Your task to perform on an android device: Open settings on Google Maps Image 0: 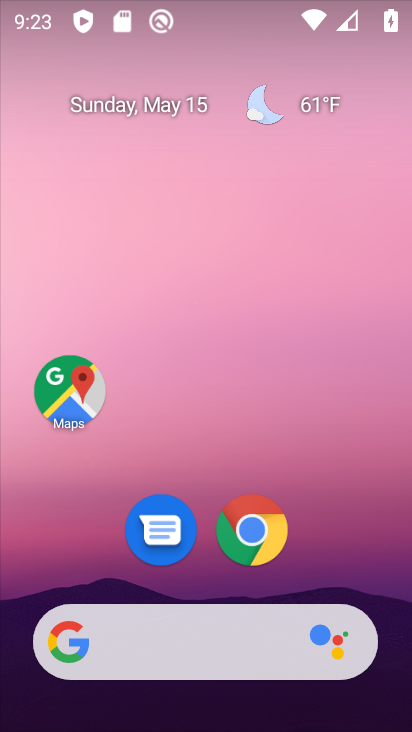
Step 0: drag from (230, 723) to (238, 124)
Your task to perform on an android device: Open settings on Google Maps Image 1: 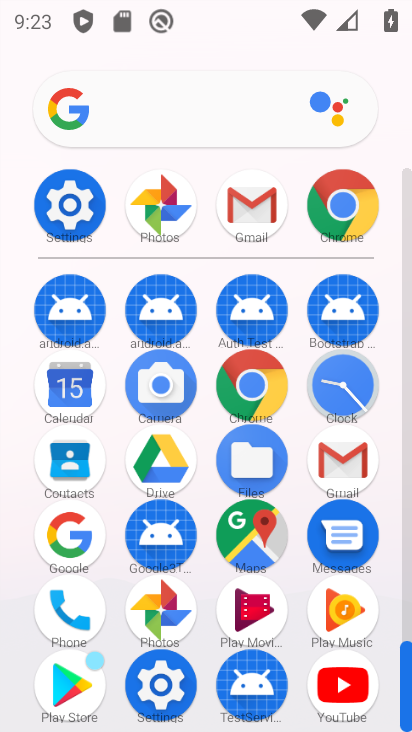
Step 1: click (261, 538)
Your task to perform on an android device: Open settings on Google Maps Image 2: 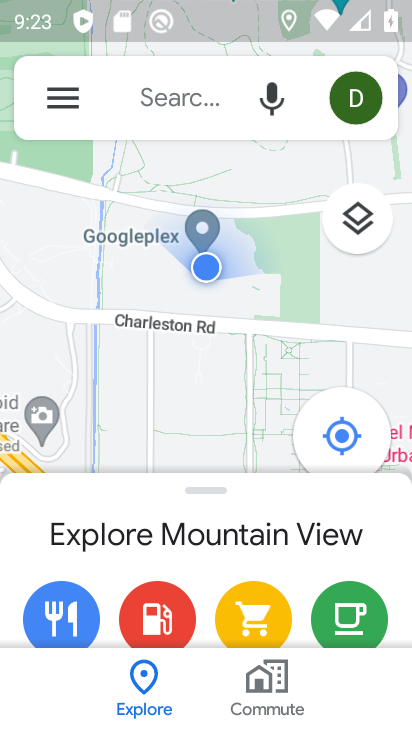
Step 2: click (69, 92)
Your task to perform on an android device: Open settings on Google Maps Image 3: 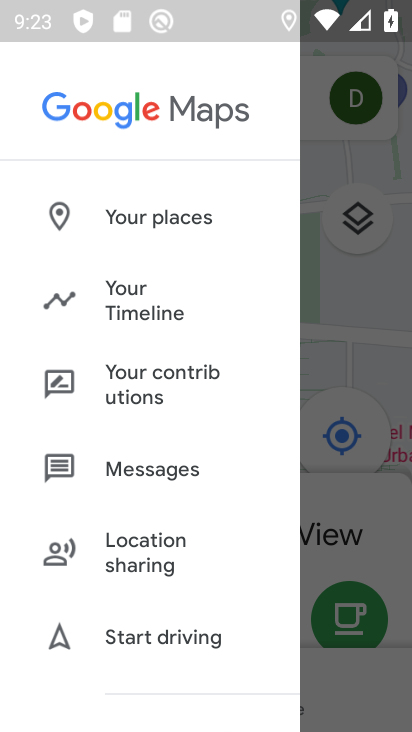
Step 3: drag from (149, 638) to (155, 296)
Your task to perform on an android device: Open settings on Google Maps Image 4: 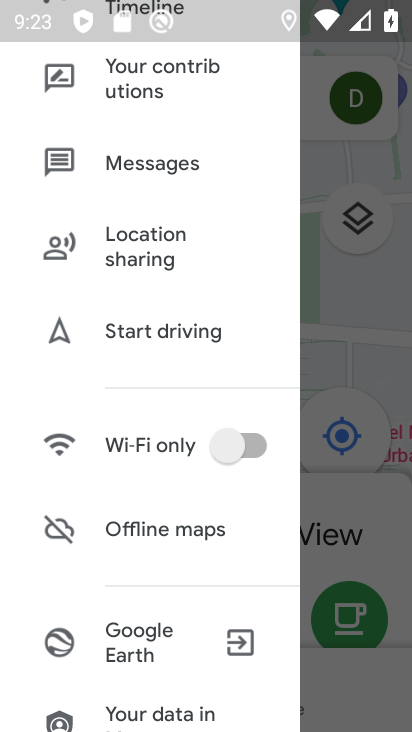
Step 4: drag from (151, 668) to (156, 152)
Your task to perform on an android device: Open settings on Google Maps Image 5: 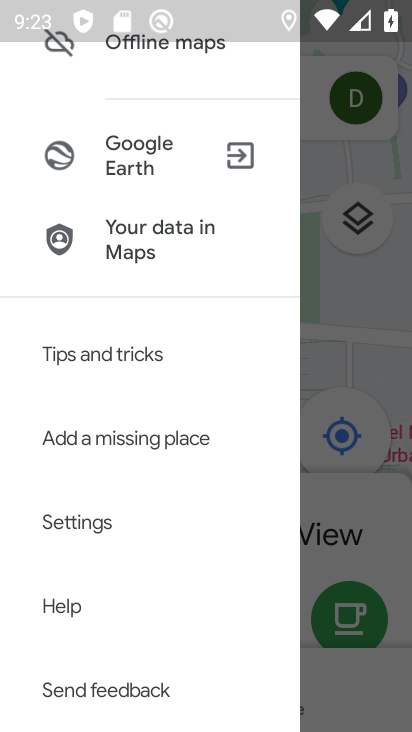
Step 5: click (74, 512)
Your task to perform on an android device: Open settings on Google Maps Image 6: 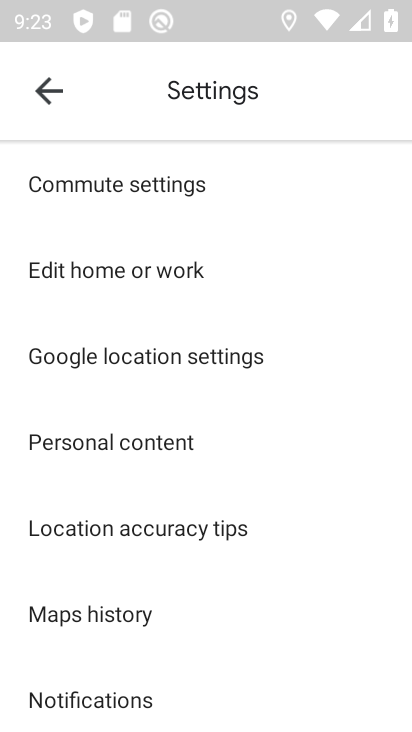
Step 6: task complete